Your task to perform on an android device: What's the weather going to be this weekend? Image 0: 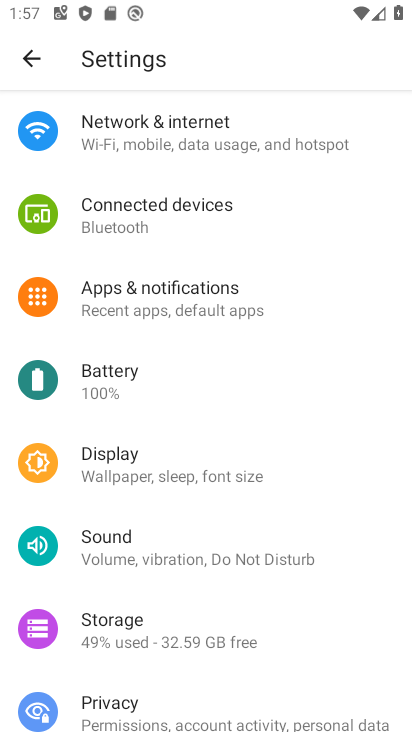
Step 0: press home button
Your task to perform on an android device: What's the weather going to be this weekend? Image 1: 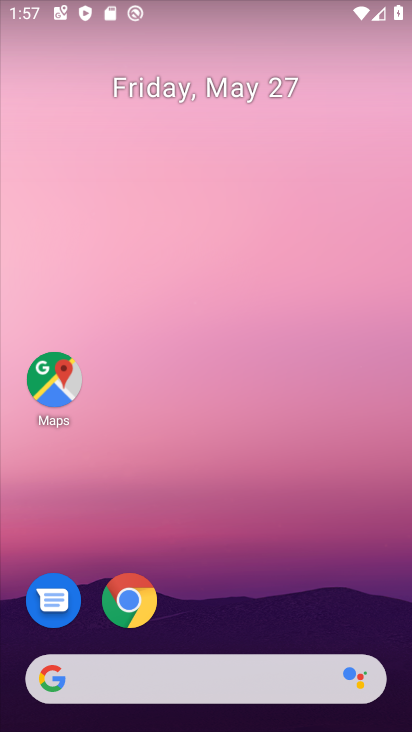
Step 1: drag from (216, 723) to (220, 11)
Your task to perform on an android device: What's the weather going to be this weekend? Image 2: 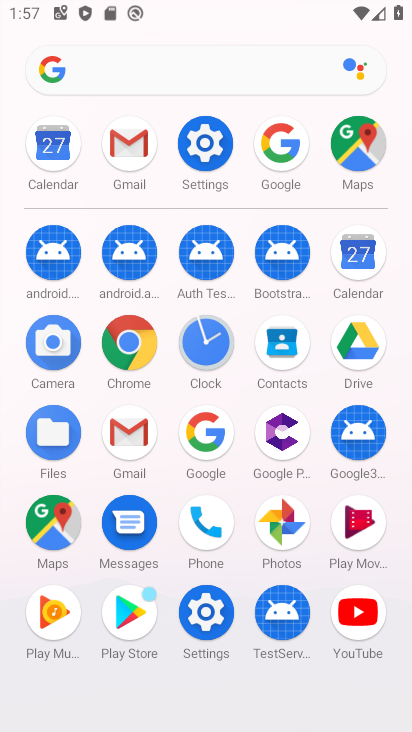
Step 2: click (204, 435)
Your task to perform on an android device: What's the weather going to be this weekend? Image 3: 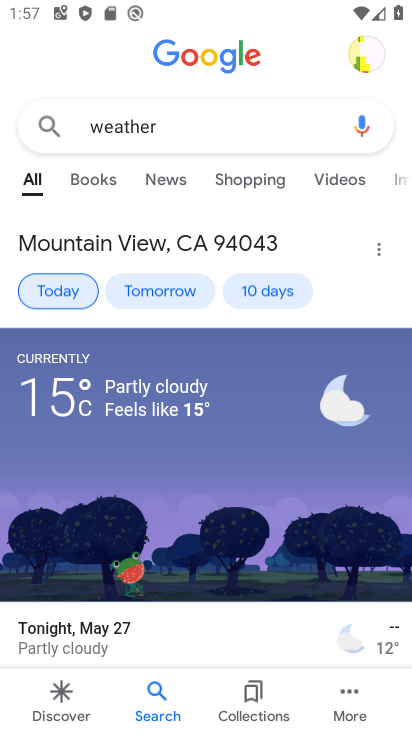
Step 3: click (268, 278)
Your task to perform on an android device: What's the weather going to be this weekend? Image 4: 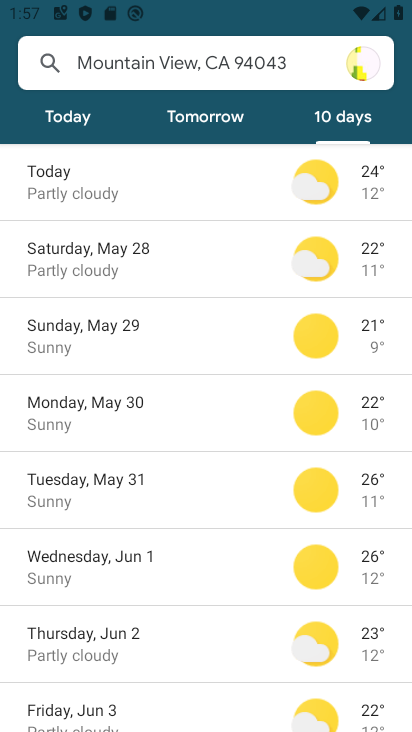
Step 4: click (62, 263)
Your task to perform on an android device: What's the weather going to be this weekend? Image 5: 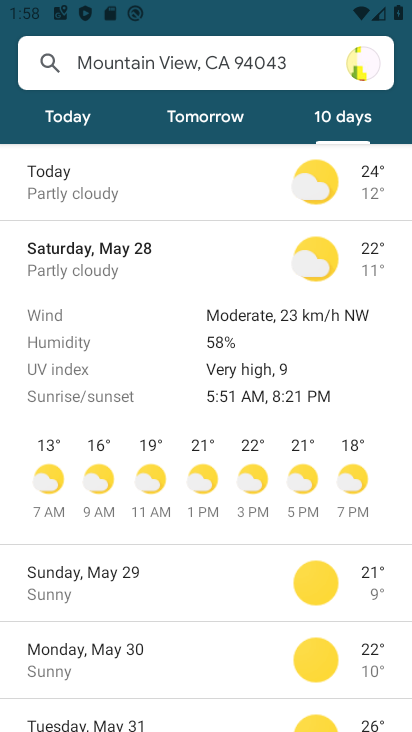
Step 5: task complete